Your task to perform on an android device: What is the news today? Image 0: 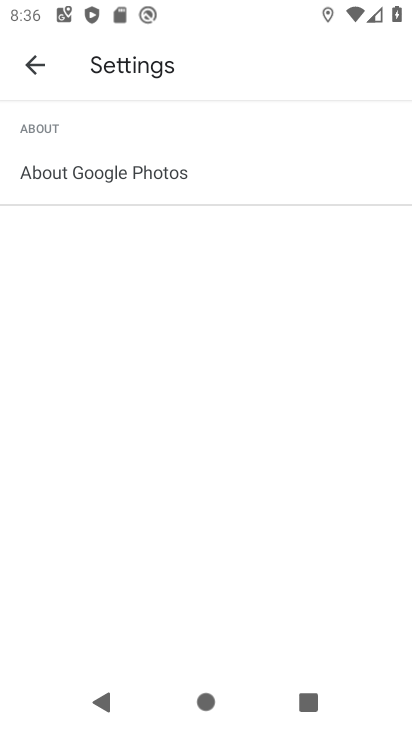
Step 0: press home button
Your task to perform on an android device: What is the news today? Image 1: 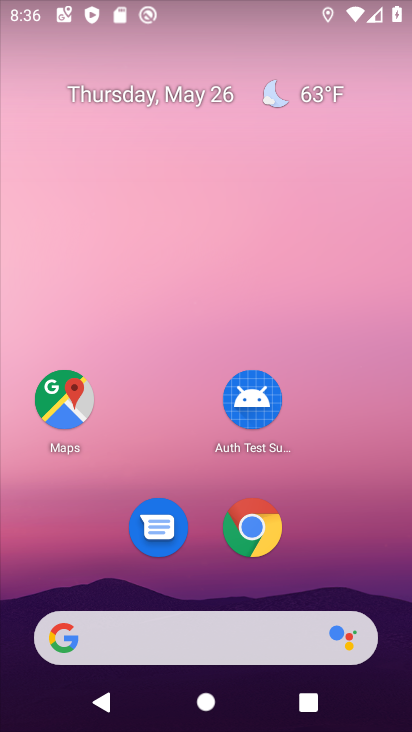
Step 1: drag from (360, 485) to (396, 106)
Your task to perform on an android device: What is the news today? Image 2: 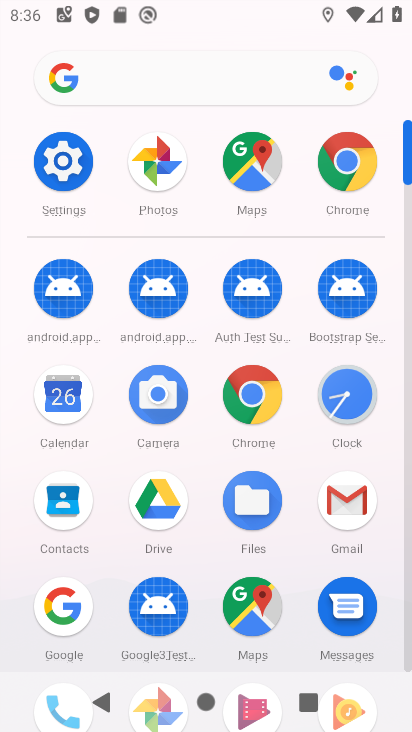
Step 2: click (348, 175)
Your task to perform on an android device: What is the news today? Image 3: 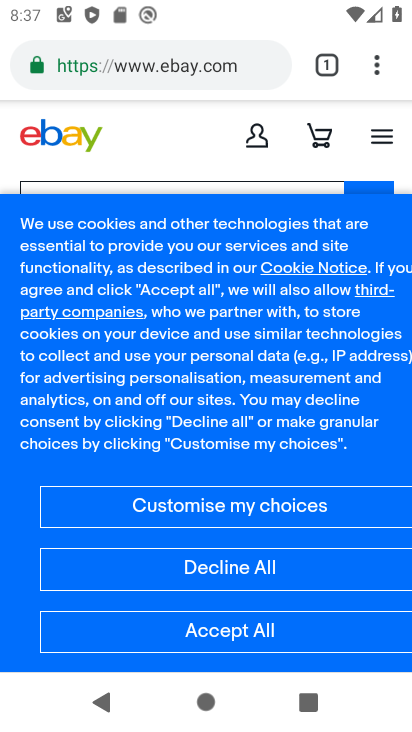
Step 3: drag from (381, 65) to (164, 139)
Your task to perform on an android device: What is the news today? Image 4: 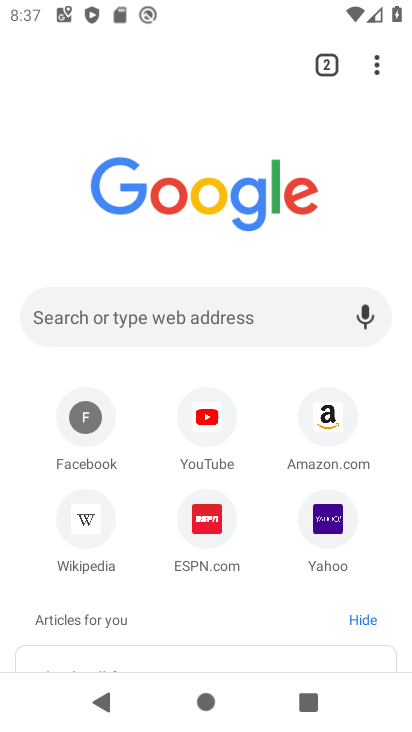
Step 4: click (164, 139)
Your task to perform on an android device: What is the news today? Image 5: 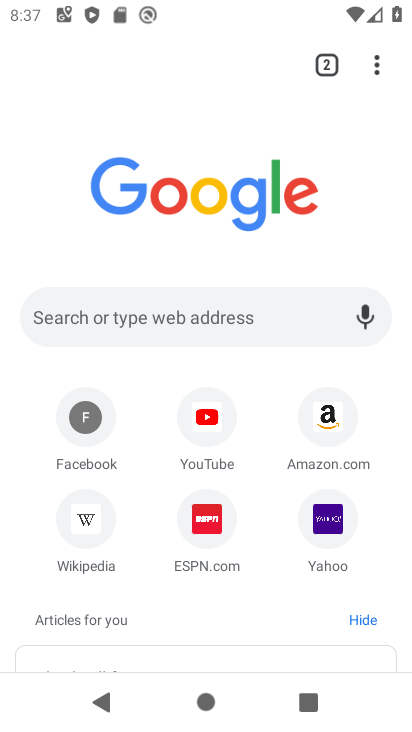
Step 5: click (164, 139)
Your task to perform on an android device: What is the news today? Image 6: 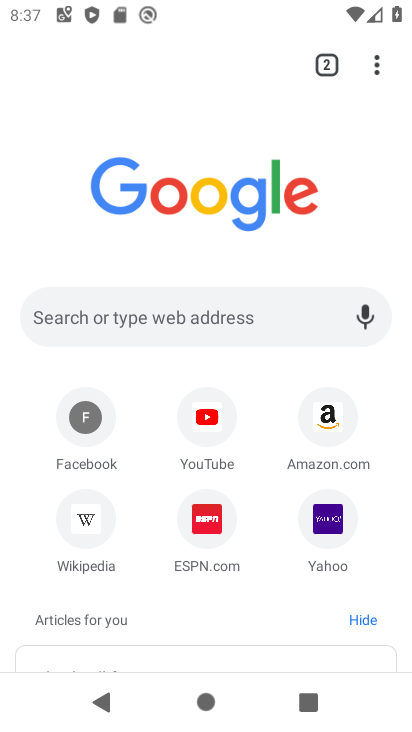
Step 6: click (153, 144)
Your task to perform on an android device: What is the news today? Image 7: 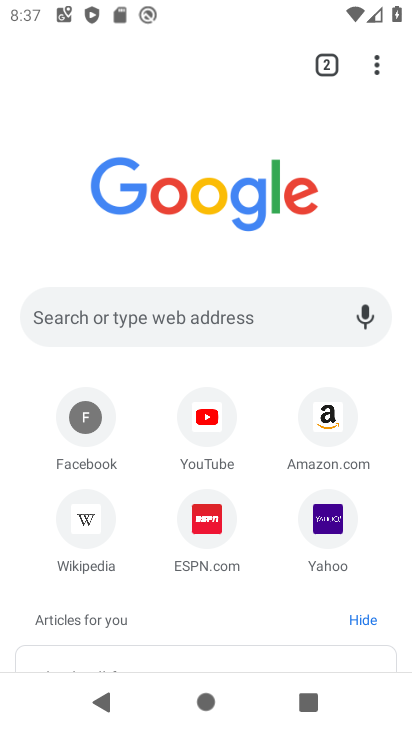
Step 7: drag from (252, 615) to (268, 153)
Your task to perform on an android device: What is the news today? Image 8: 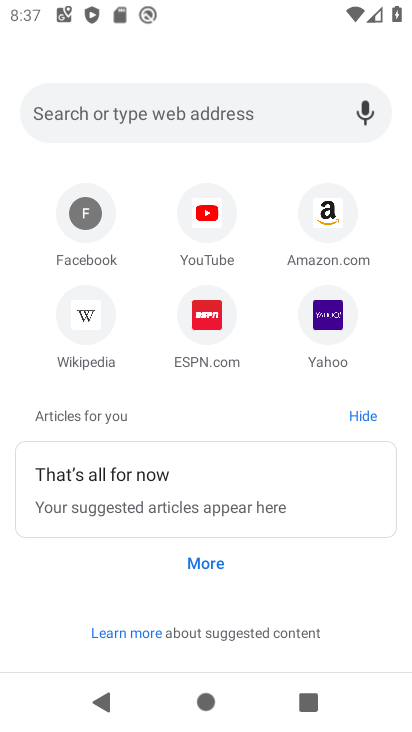
Step 8: drag from (235, 531) to (252, 230)
Your task to perform on an android device: What is the news today? Image 9: 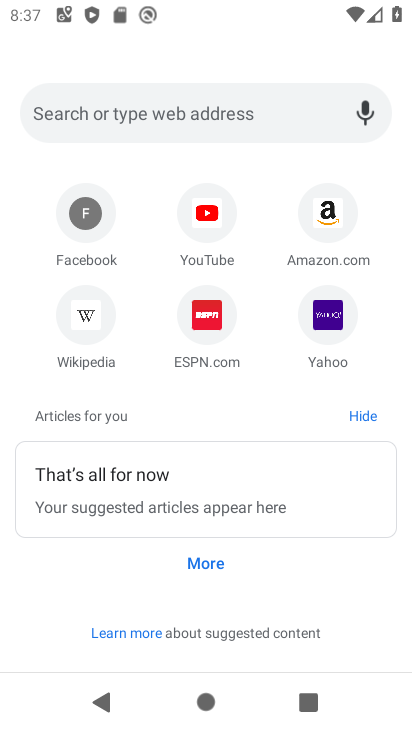
Step 9: click (188, 551)
Your task to perform on an android device: What is the news today? Image 10: 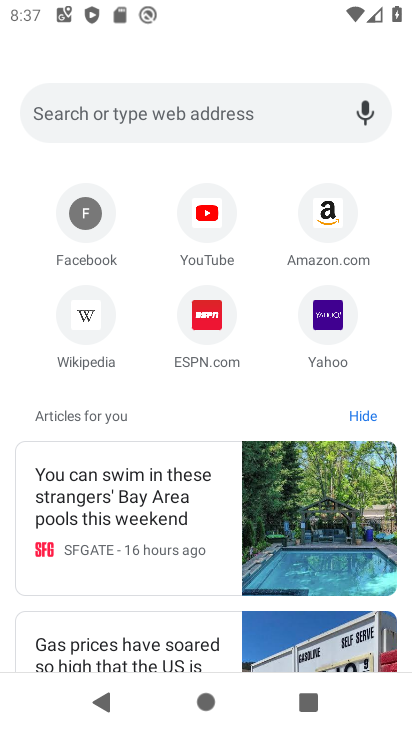
Step 10: task complete